Your task to perform on an android device: allow notifications from all sites in the chrome app Image 0: 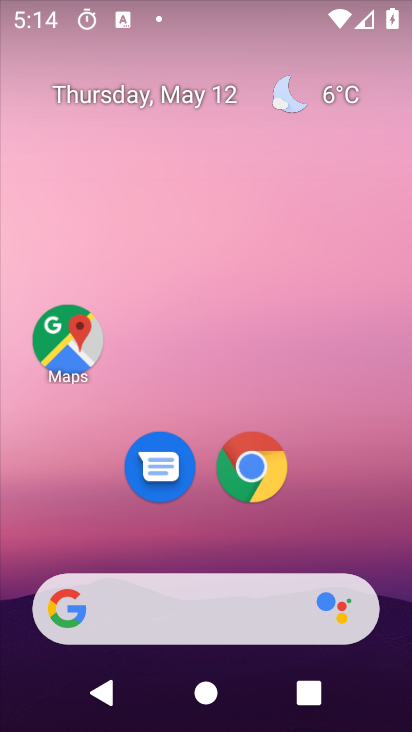
Step 0: drag from (276, 569) to (409, 12)
Your task to perform on an android device: allow notifications from all sites in the chrome app Image 1: 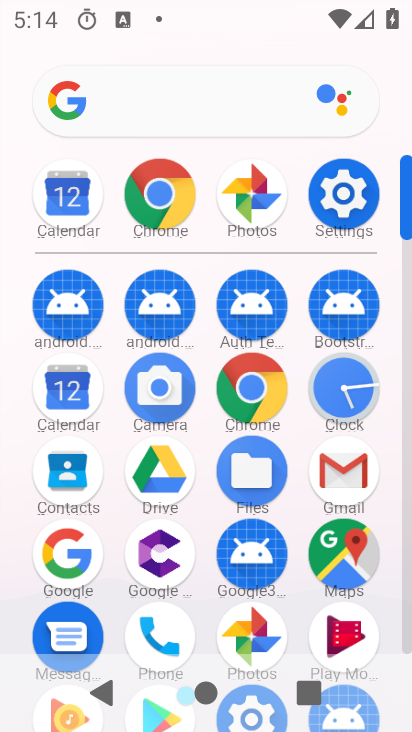
Step 1: click (244, 373)
Your task to perform on an android device: allow notifications from all sites in the chrome app Image 2: 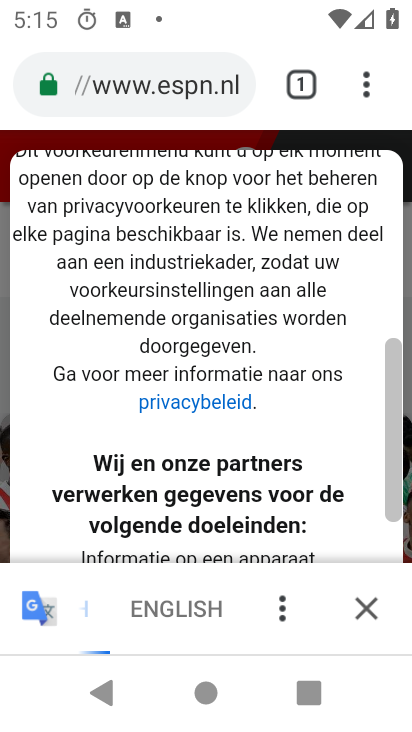
Step 2: drag from (364, 94) to (151, 513)
Your task to perform on an android device: allow notifications from all sites in the chrome app Image 3: 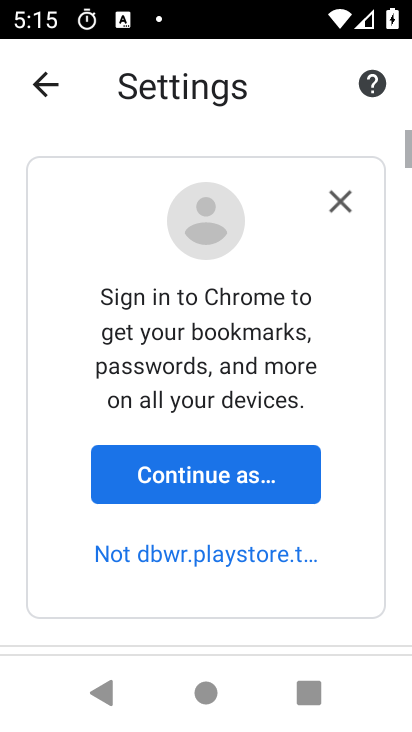
Step 3: drag from (134, 599) to (241, 62)
Your task to perform on an android device: allow notifications from all sites in the chrome app Image 4: 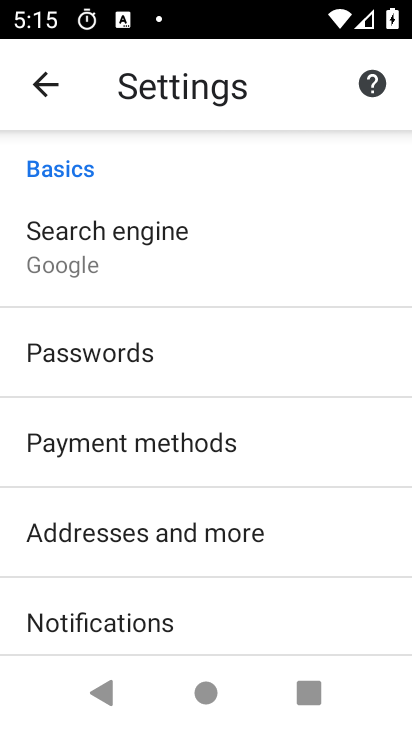
Step 4: drag from (108, 588) to (315, 56)
Your task to perform on an android device: allow notifications from all sites in the chrome app Image 5: 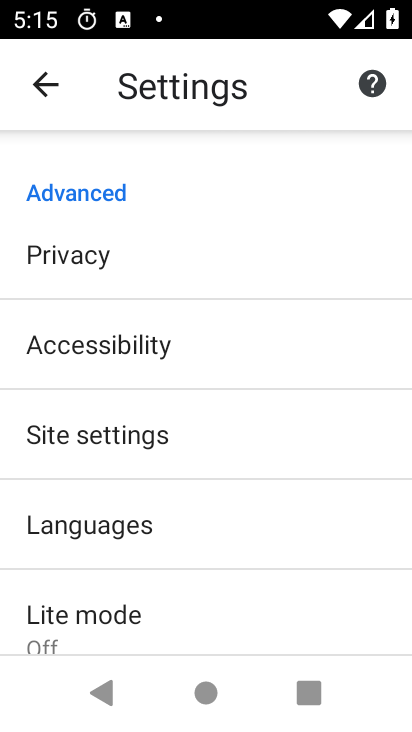
Step 5: click (184, 455)
Your task to perform on an android device: allow notifications from all sites in the chrome app Image 6: 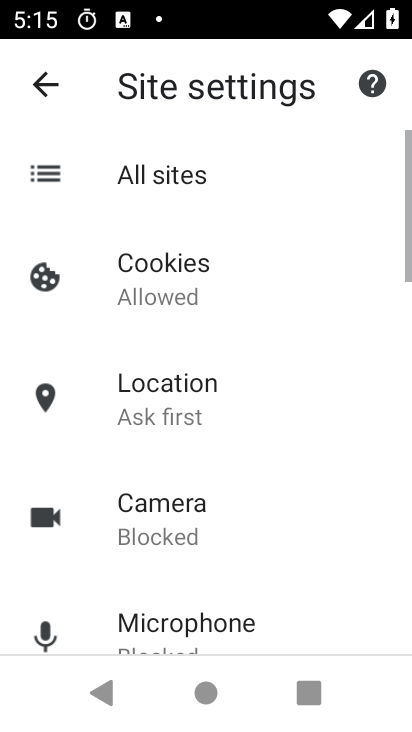
Step 6: drag from (179, 579) to (247, 165)
Your task to perform on an android device: allow notifications from all sites in the chrome app Image 7: 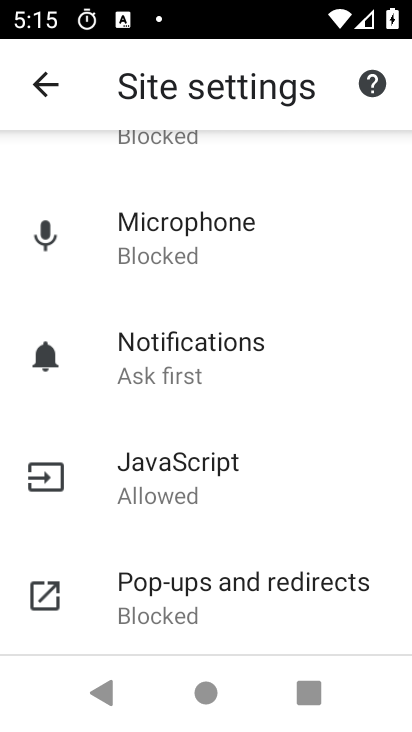
Step 7: click (234, 362)
Your task to perform on an android device: allow notifications from all sites in the chrome app Image 8: 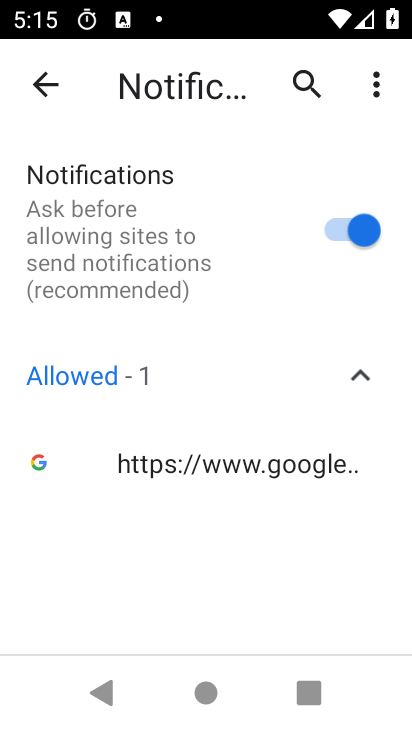
Step 8: task complete